Your task to perform on an android device: empty trash in the gmail app Image 0: 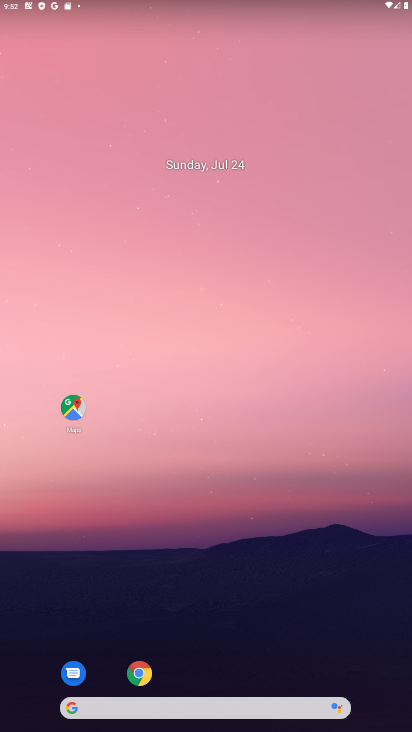
Step 0: drag from (17, 674) to (224, 166)
Your task to perform on an android device: empty trash in the gmail app Image 1: 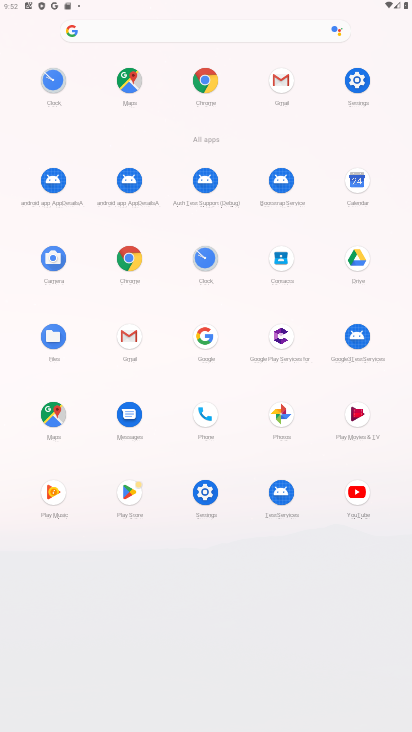
Step 1: click (127, 352)
Your task to perform on an android device: empty trash in the gmail app Image 2: 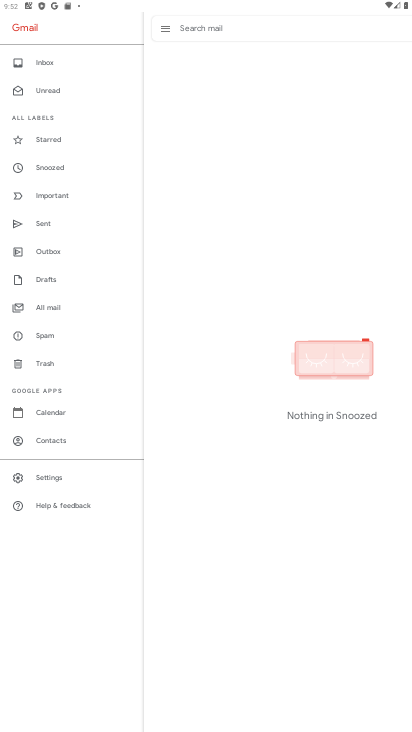
Step 2: click (55, 365)
Your task to perform on an android device: empty trash in the gmail app Image 3: 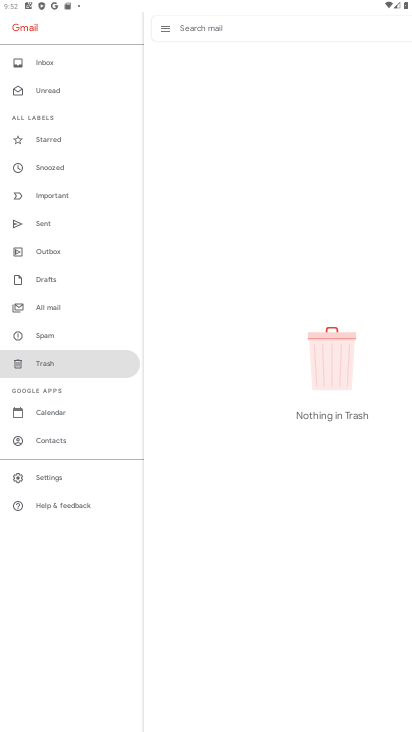
Step 3: task complete